Your task to perform on an android device: find snoozed emails in the gmail app Image 0: 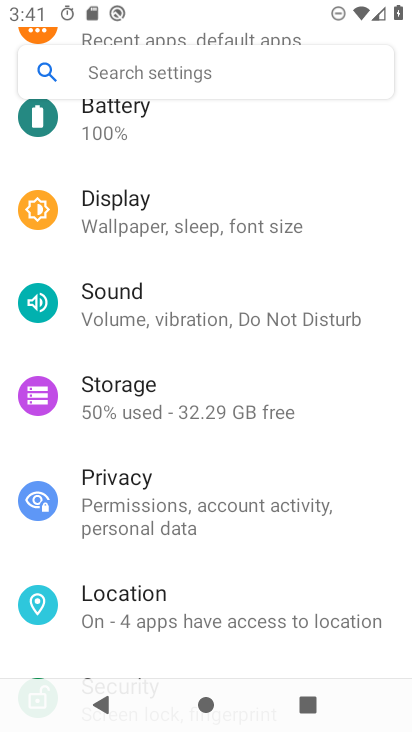
Step 0: click (44, 322)
Your task to perform on an android device: find snoozed emails in the gmail app Image 1: 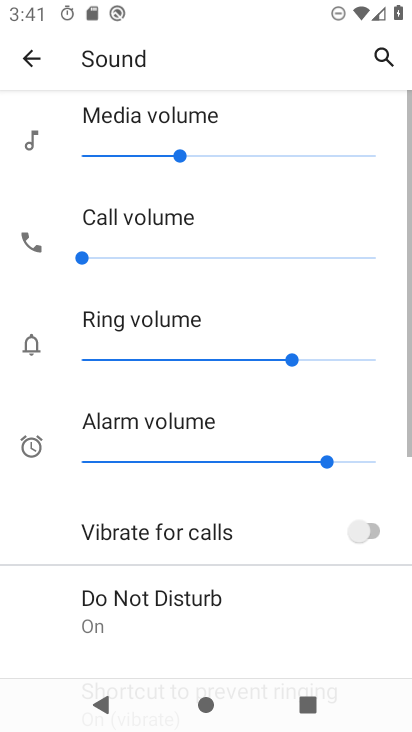
Step 1: press home button
Your task to perform on an android device: find snoozed emails in the gmail app Image 2: 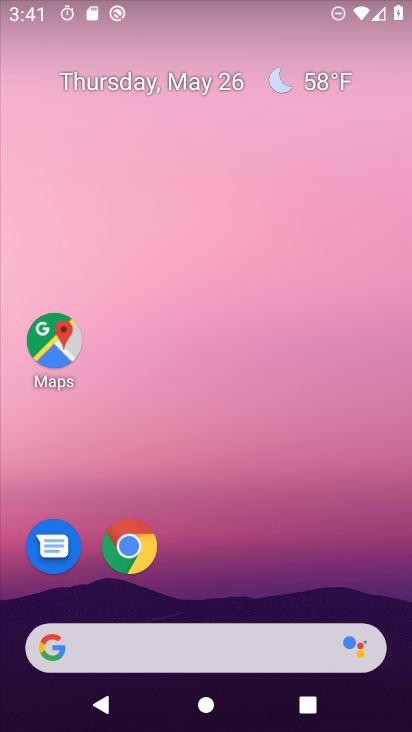
Step 2: click (53, 329)
Your task to perform on an android device: find snoozed emails in the gmail app Image 3: 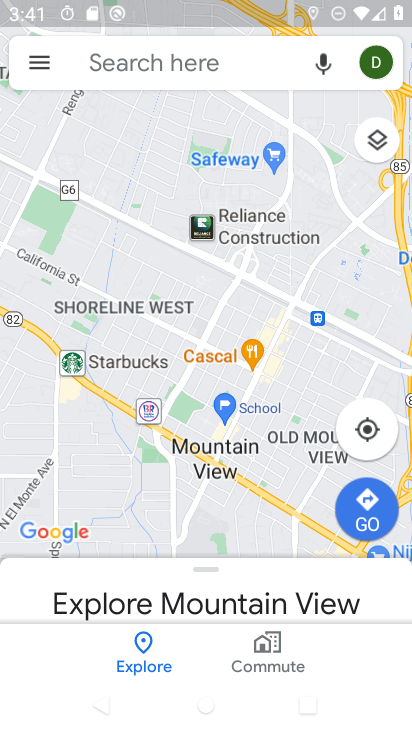
Step 3: press home button
Your task to perform on an android device: find snoozed emails in the gmail app Image 4: 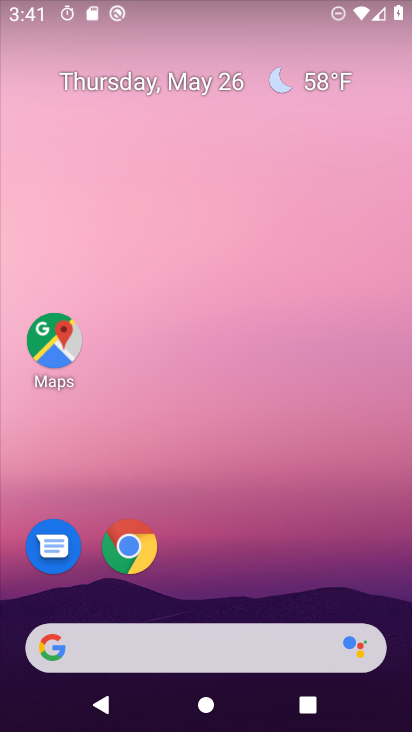
Step 4: drag from (186, 591) to (207, 41)
Your task to perform on an android device: find snoozed emails in the gmail app Image 5: 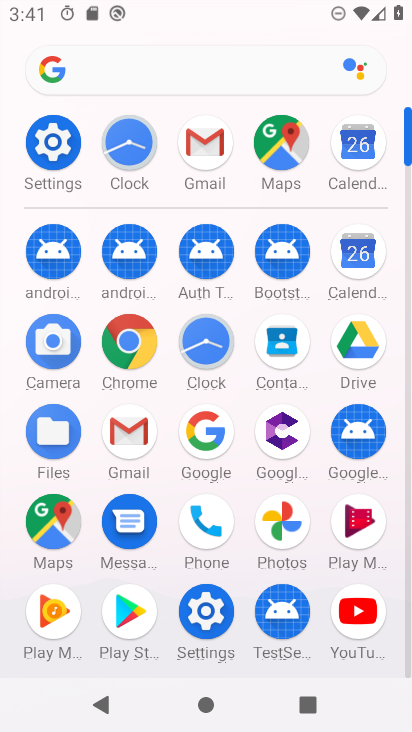
Step 5: click (136, 423)
Your task to perform on an android device: find snoozed emails in the gmail app Image 6: 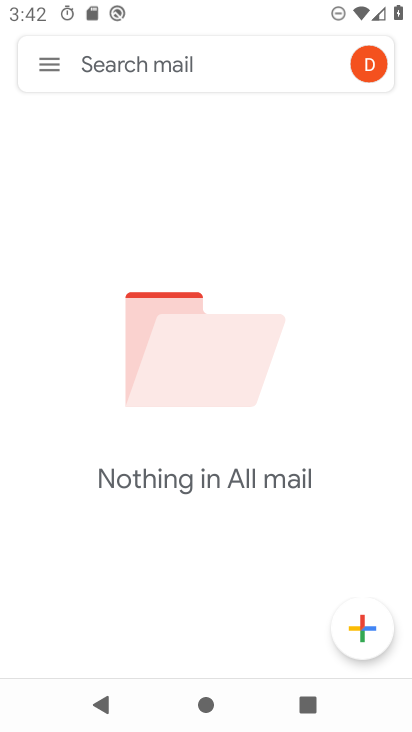
Step 6: click (50, 61)
Your task to perform on an android device: find snoozed emails in the gmail app Image 7: 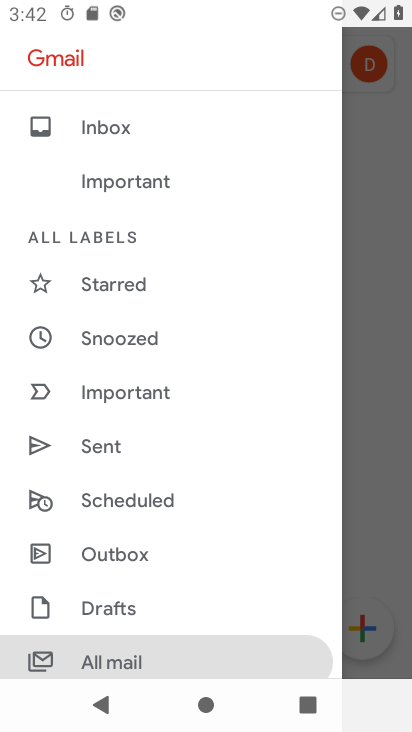
Step 7: click (112, 337)
Your task to perform on an android device: find snoozed emails in the gmail app Image 8: 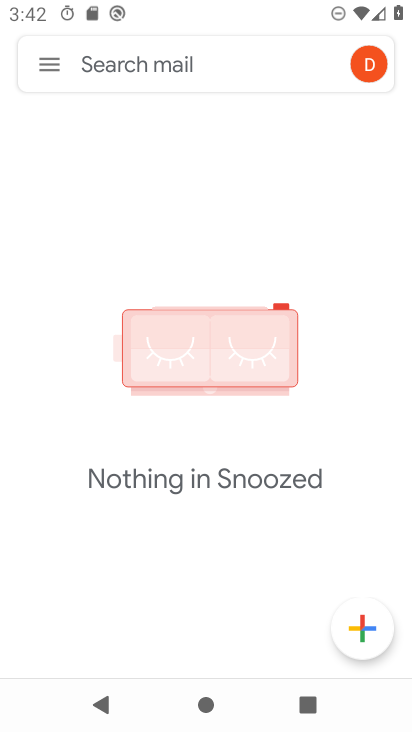
Step 8: task complete